Your task to perform on an android device: check android version Image 0: 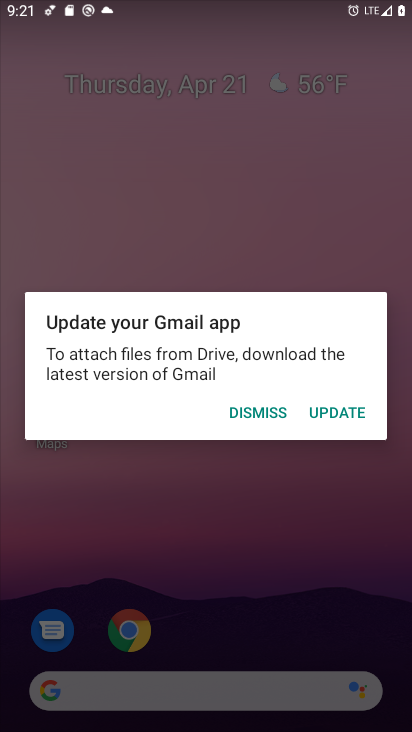
Step 0: click (233, 407)
Your task to perform on an android device: check android version Image 1: 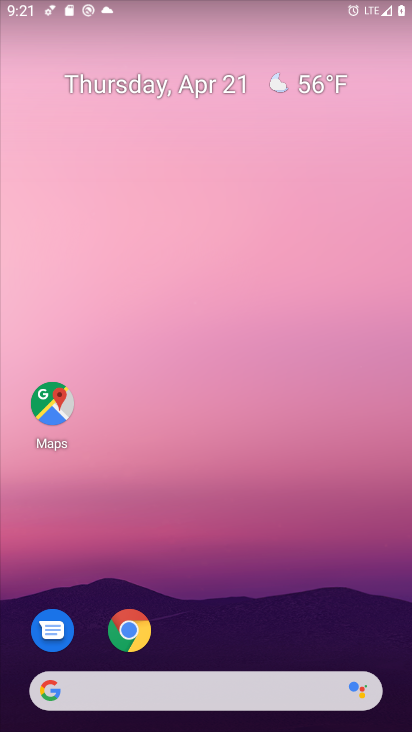
Step 1: drag from (211, 624) to (250, 251)
Your task to perform on an android device: check android version Image 2: 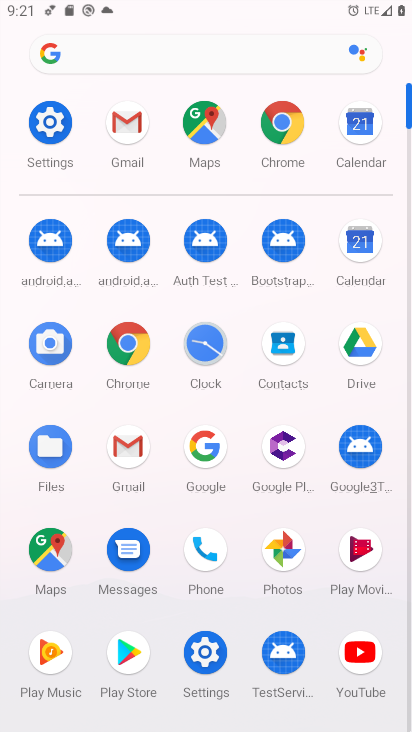
Step 2: click (22, 139)
Your task to perform on an android device: check android version Image 3: 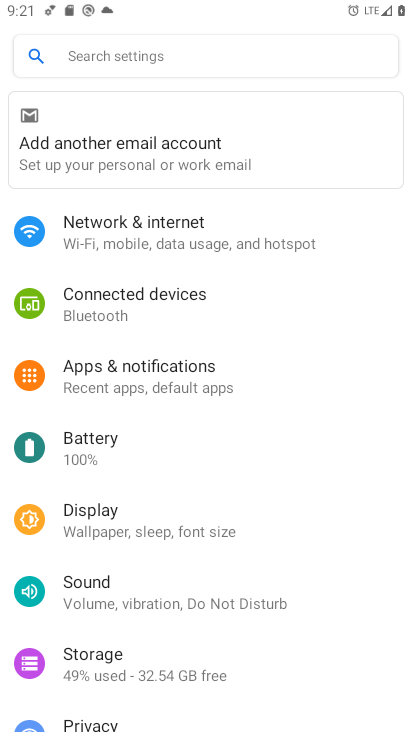
Step 3: drag from (154, 512) to (211, 0)
Your task to perform on an android device: check android version Image 4: 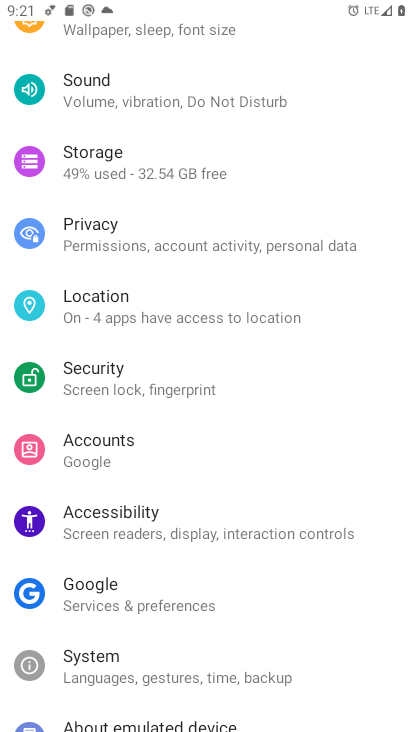
Step 4: drag from (190, 578) to (240, 141)
Your task to perform on an android device: check android version Image 5: 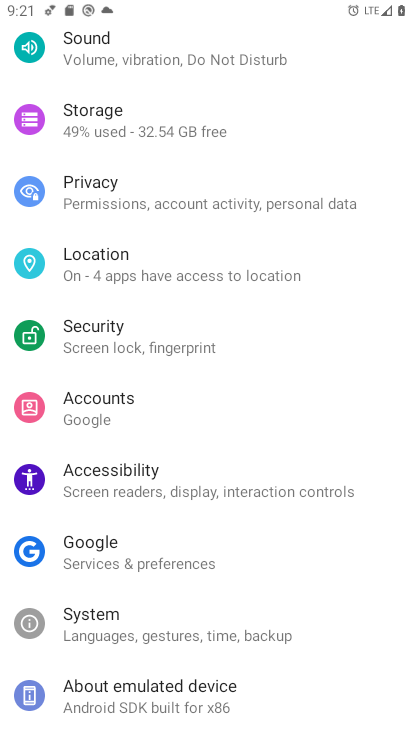
Step 5: drag from (126, 542) to (180, 170)
Your task to perform on an android device: check android version Image 6: 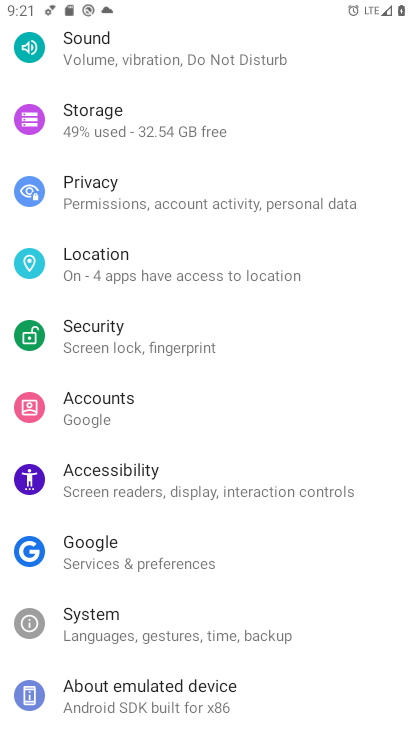
Step 6: click (136, 705)
Your task to perform on an android device: check android version Image 7: 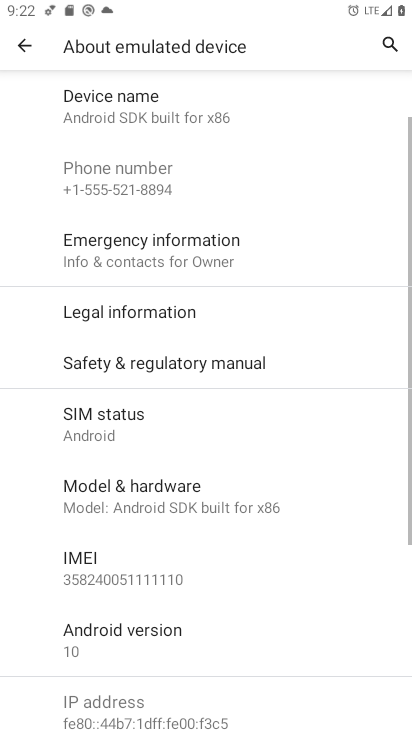
Step 7: drag from (130, 509) to (139, 323)
Your task to perform on an android device: check android version Image 8: 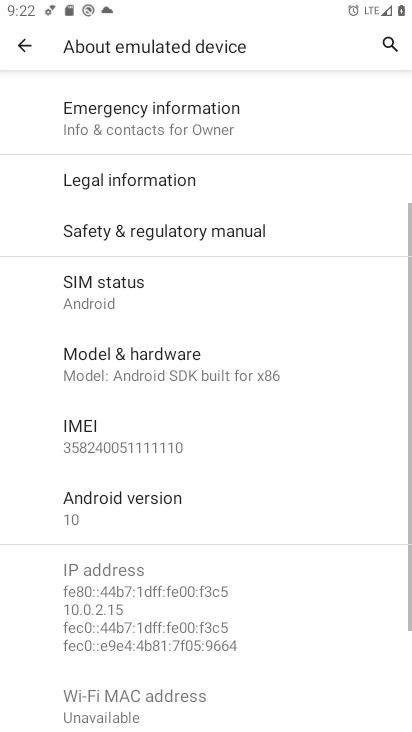
Step 8: drag from (108, 509) to (111, 426)
Your task to perform on an android device: check android version Image 9: 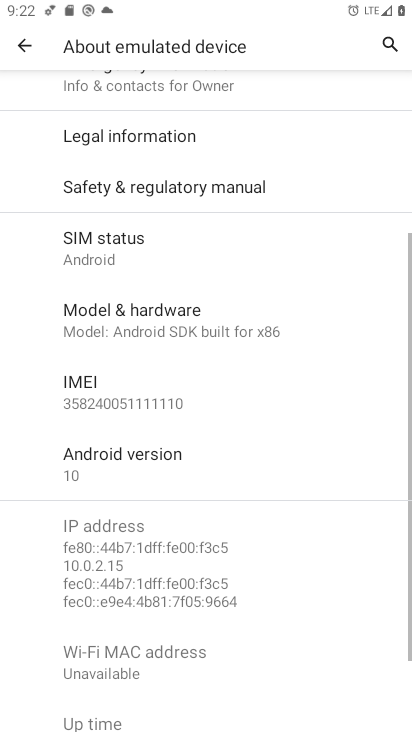
Step 9: click (107, 464)
Your task to perform on an android device: check android version Image 10: 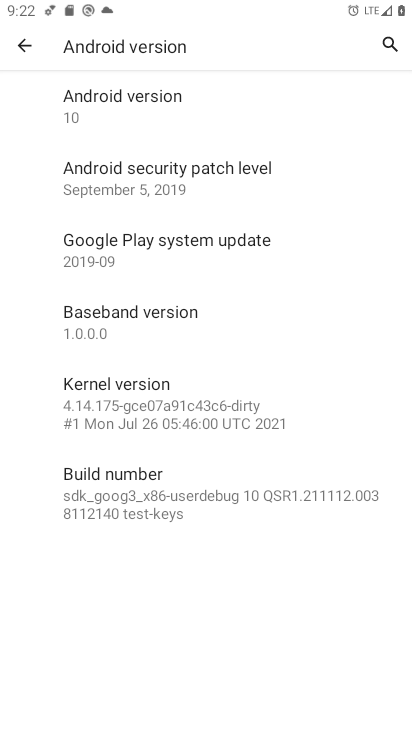
Step 10: task complete